Your task to perform on an android device: turn on airplane mode Image 0: 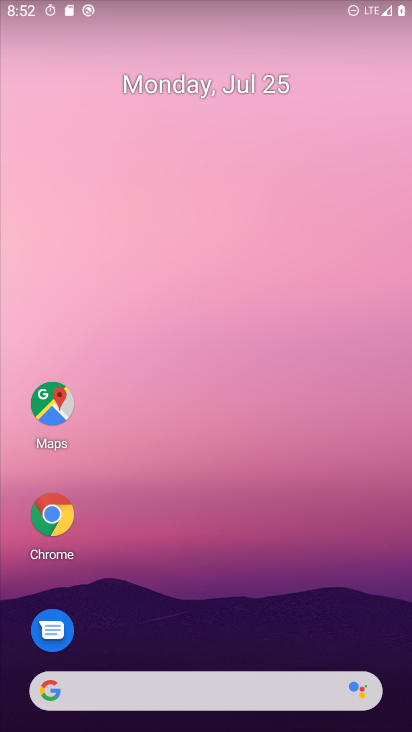
Step 0: drag from (16, 708) to (405, 660)
Your task to perform on an android device: turn on airplane mode Image 1: 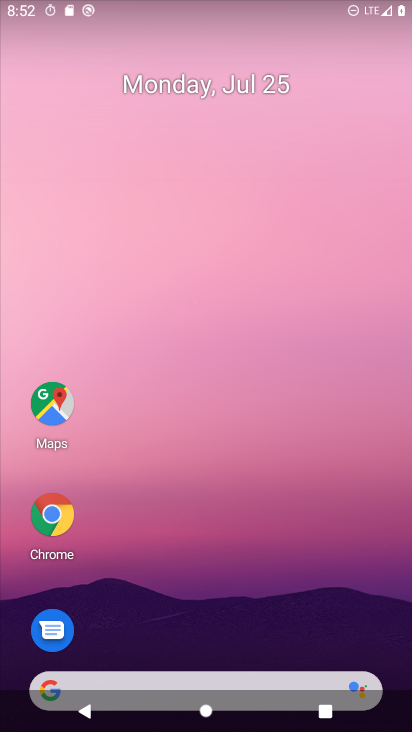
Step 1: click (123, 648)
Your task to perform on an android device: turn on airplane mode Image 2: 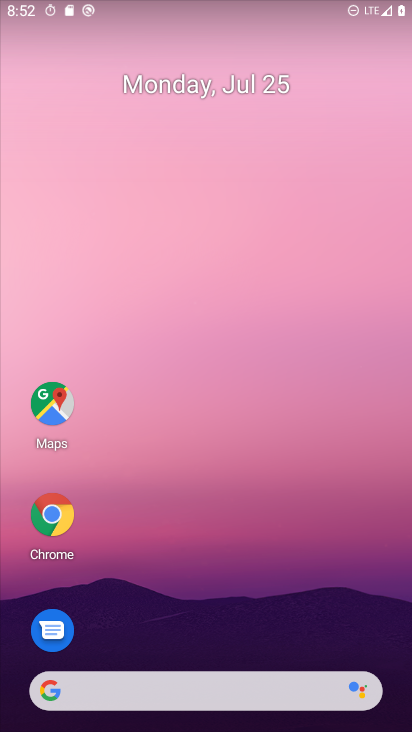
Step 2: drag from (11, 696) to (200, 223)
Your task to perform on an android device: turn on airplane mode Image 3: 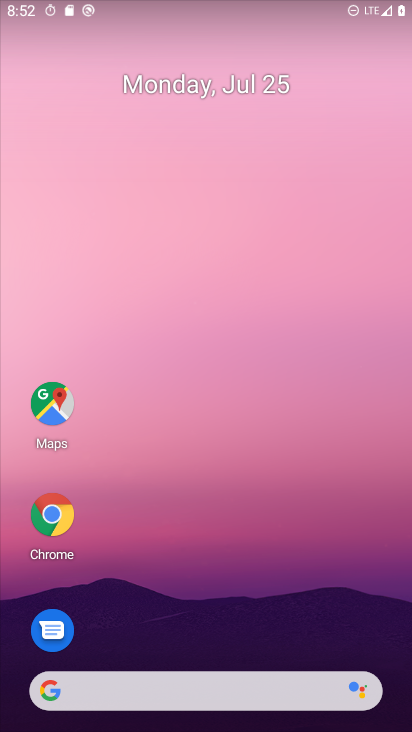
Step 3: click (12, 717)
Your task to perform on an android device: turn on airplane mode Image 4: 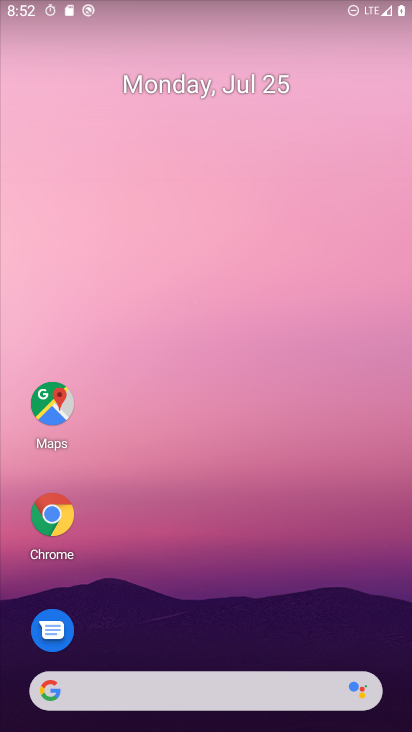
Step 4: drag from (9, 683) to (284, 165)
Your task to perform on an android device: turn on airplane mode Image 5: 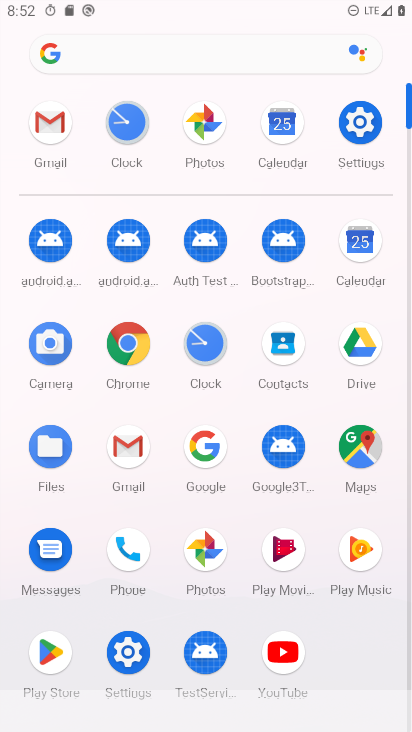
Step 5: click (125, 664)
Your task to perform on an android device: turn on airplane mode Image 6: 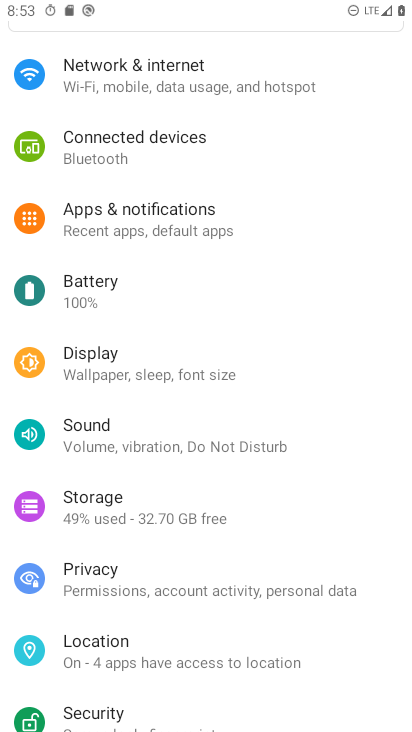
Step 6: click (156, 86)
Your task to perform on an android device: turn on airplane mode Image 7: 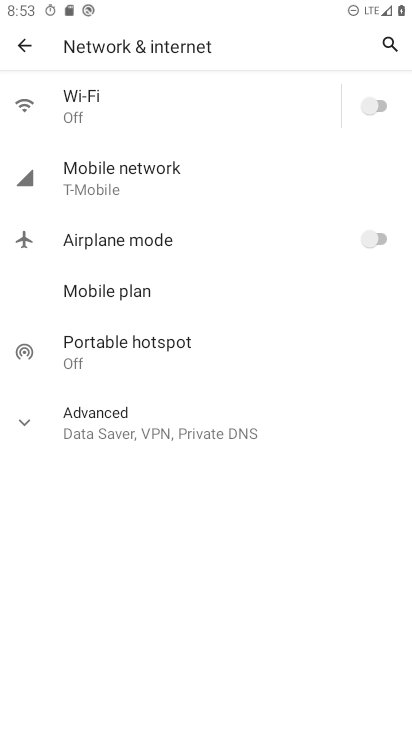
Step 7: click (365, 240)
Your task to perform on an android device: turn on airplane mode Image 8: 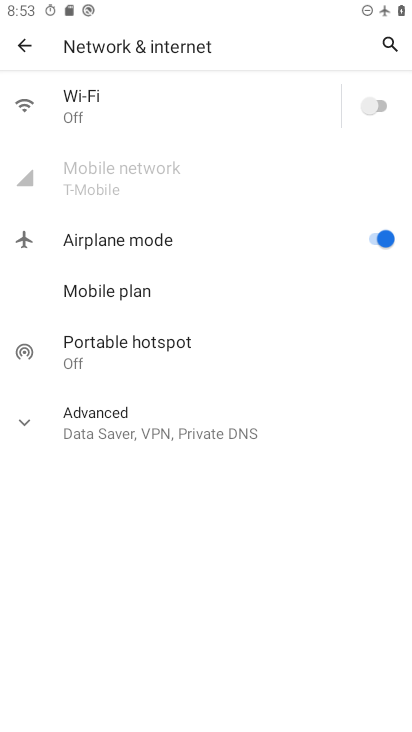
Step 8: task complete